Your task to perform on an android device: allow cookies in the chrome app Image 0: 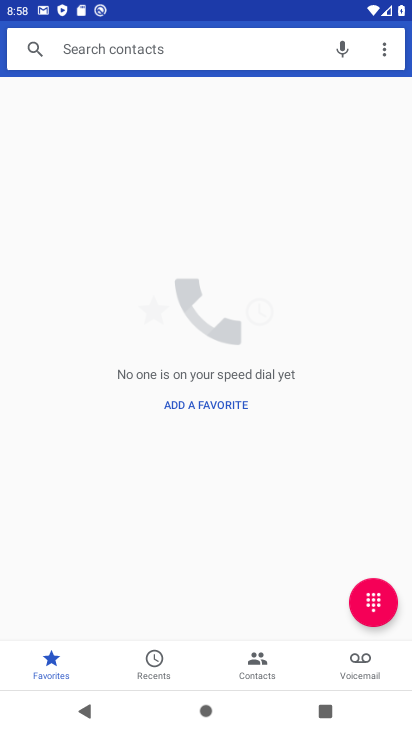
Step 0: drag from (195, 640) to (190, 464)
Your task to perform on an android device: allow cookies in the chrome app Image 1: 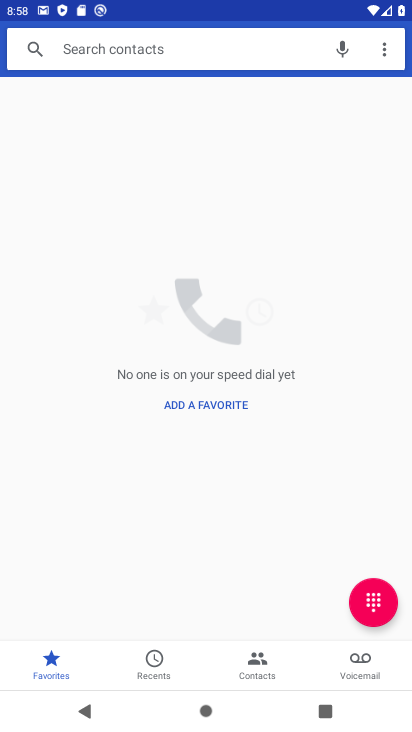
Step 1: press home button
Your task to perform on an android device: allow cookies in the chrome app Image 2: 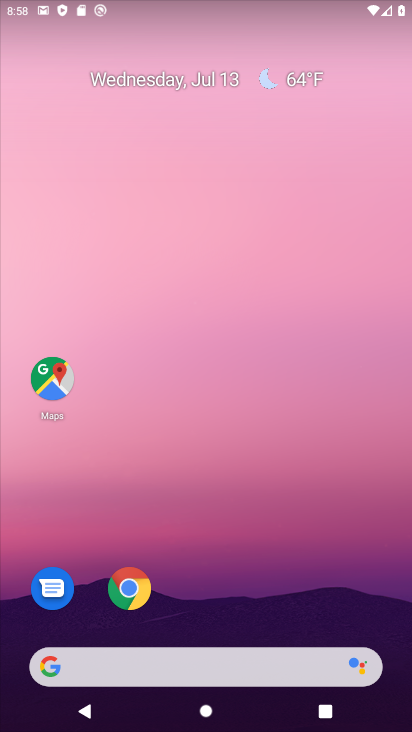
Step 2: click (123, 596)
Your task to perform on an android device: allow cookies in the chrome app Image 3: 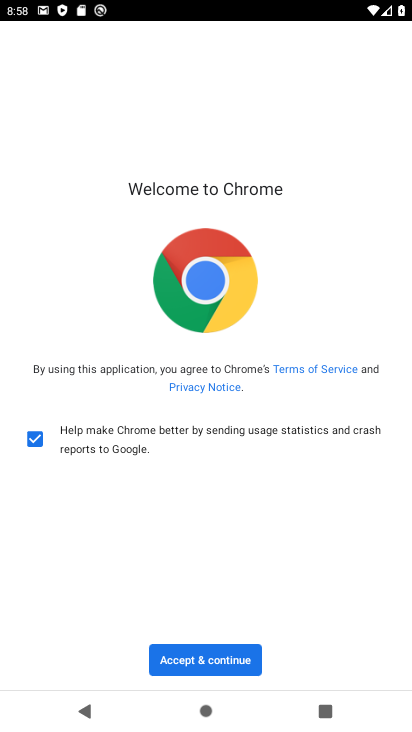
Step 3: click (199, 660)
Your task to perform on an android device: allow cookies in the chrome app Image 4: 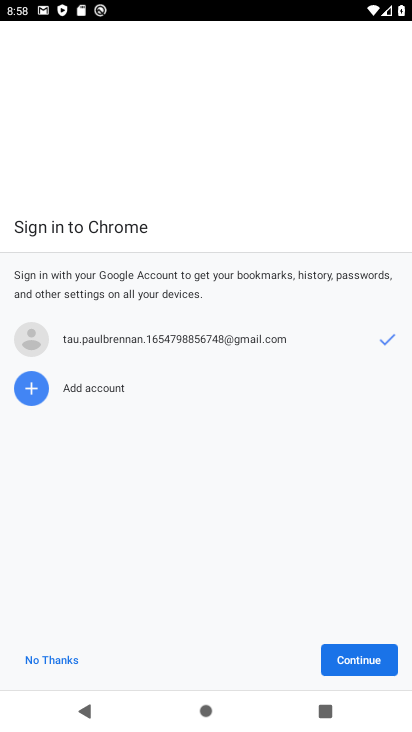
Step 4: click (366, 658)
Your task to perform on an android device: allow cookies in the chrome app Image 5: 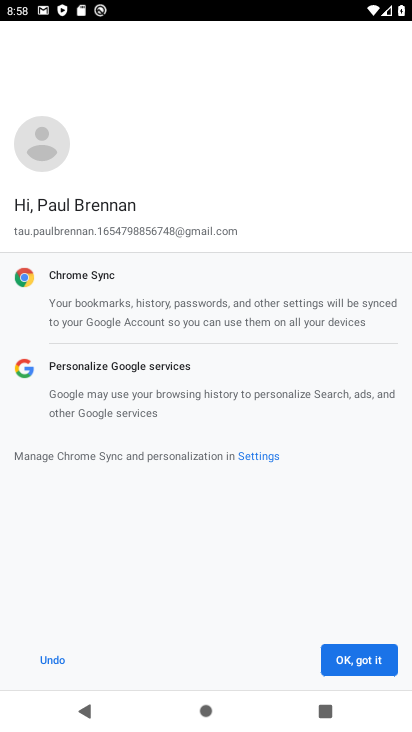
Step 5: click (365, 665)
Your task to perform on an android device: allow cookies in the chrome app Image 6: 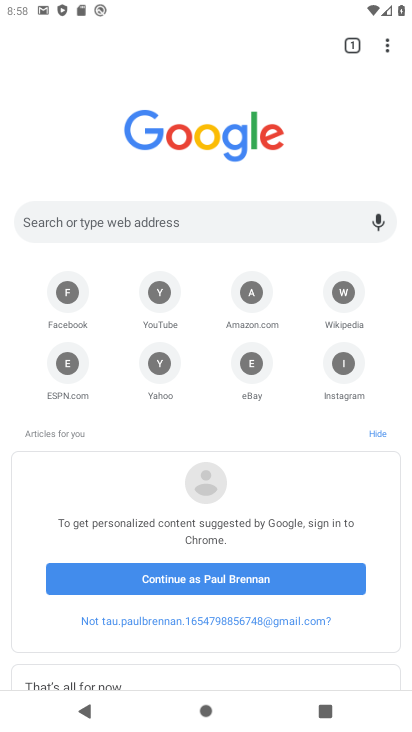
Step 6: drag from (381, 47) to (230, 384)
Your task to perform on an android device: allow cookies in the chrome app Image 7: 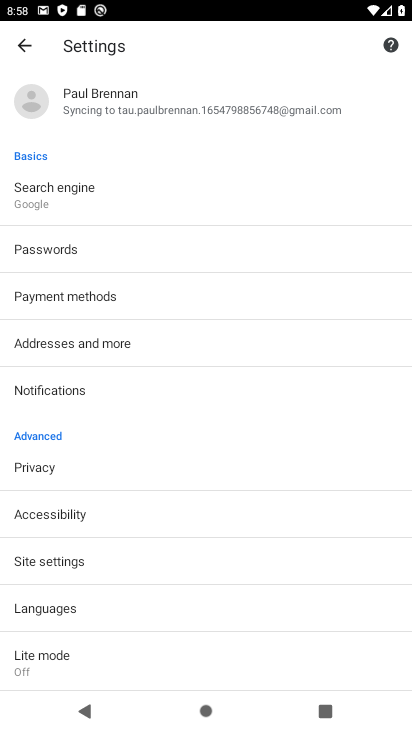
Step 7: click (103, 560)
Your task to perform on an android device: allow cookies in the chrome app Image 8: 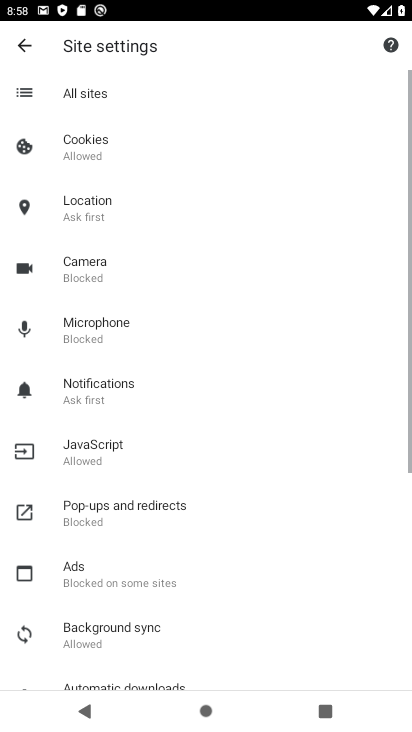
Step 8: click (51, 142)
Your task to perform on an android device: allow cookies in the chrome app Image 9: 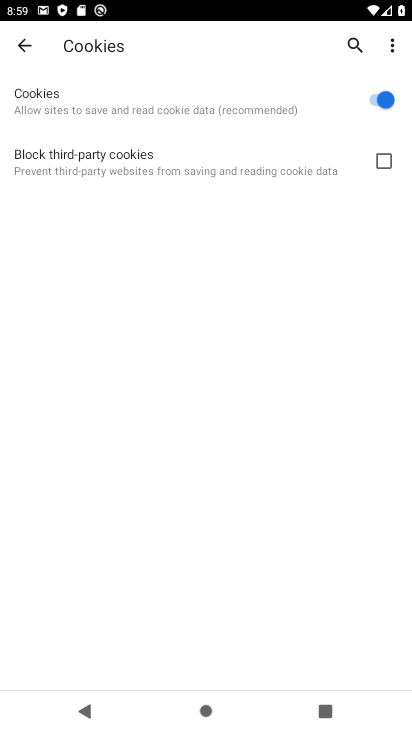
Step 9: task complete